Your task to perform on an android device: add a label to a message in the gmail app Image 0: 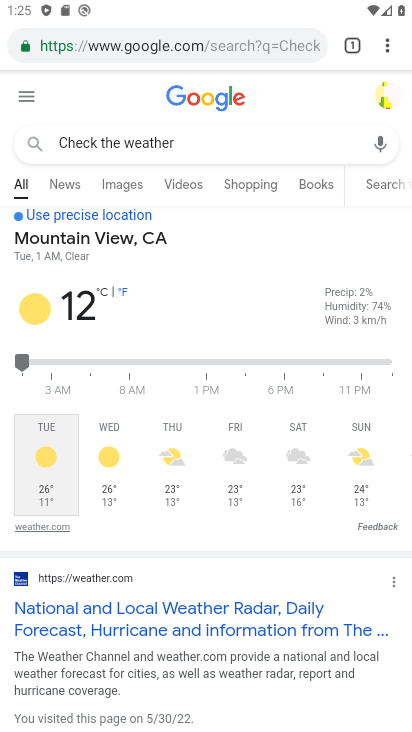
Step 0: press back button
Your task to perform on an android device: add a label to a message in the gmail app Image 1: 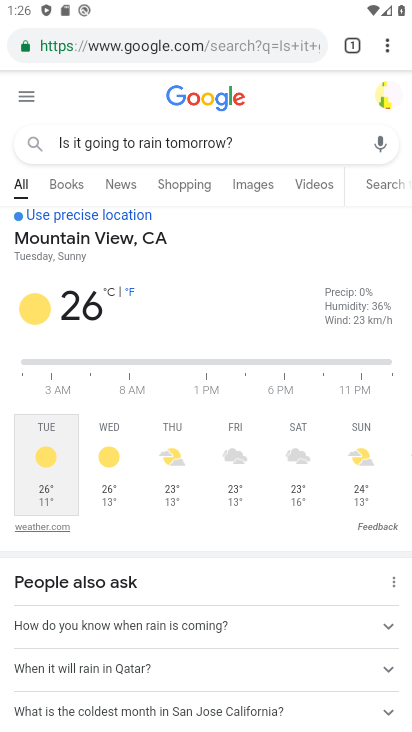
Step 1: press home button
Your task to perform on an android device: add a label to a message in the gmail app Image 2: 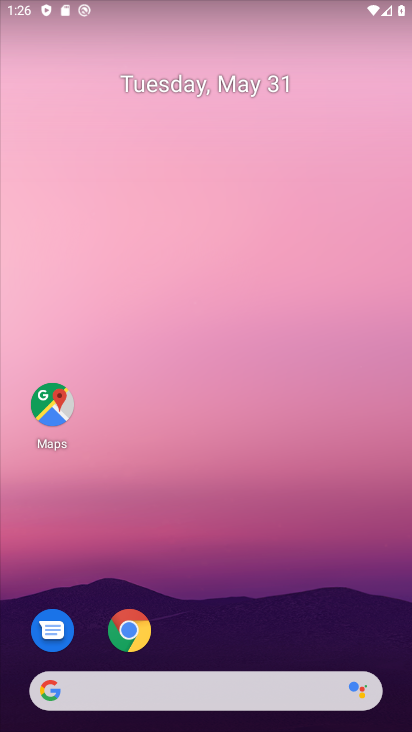
Step 2: drag from (287, 595) to (233, 41)
Your task to perform on an android device: add a label to a message in the gmail app Image 3: 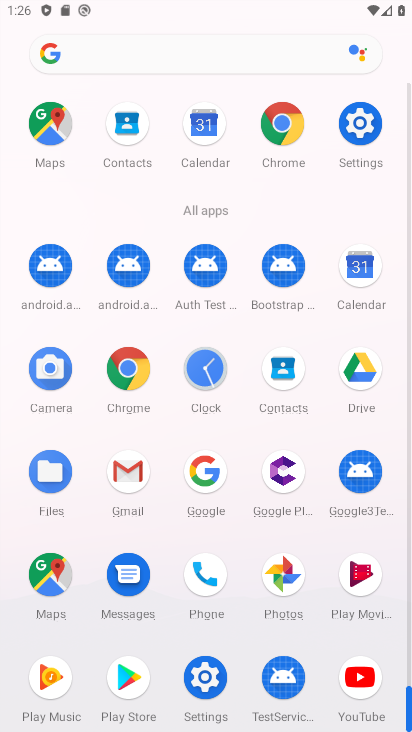
Step 3: click (125, 466)
Your task to perform on an android device: add a label to a message in the gmail app Image 4: 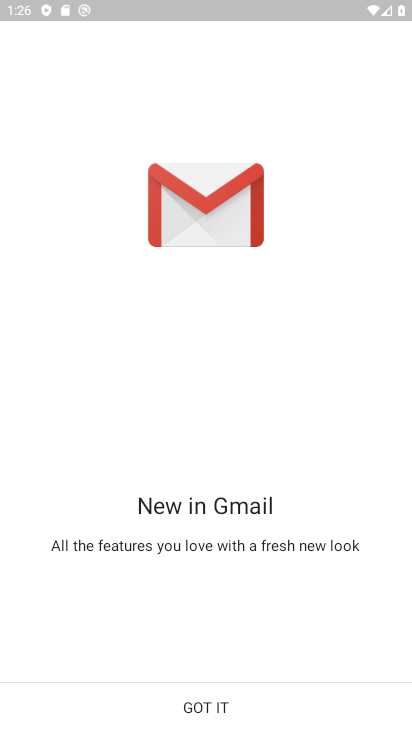
Step 4: click (177, 714)
Your task to perform on an android device: add a label to a message in the gmail app Image 5: 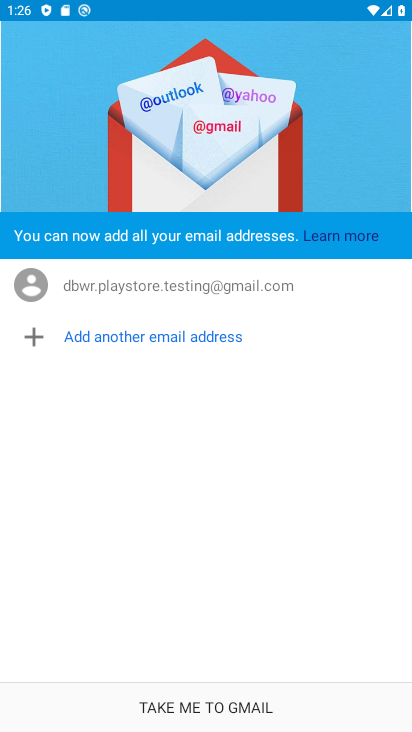
Step 5: click (205, 695)
Your task to perform on an android device: add a label to a message in the gmail app Image 6: 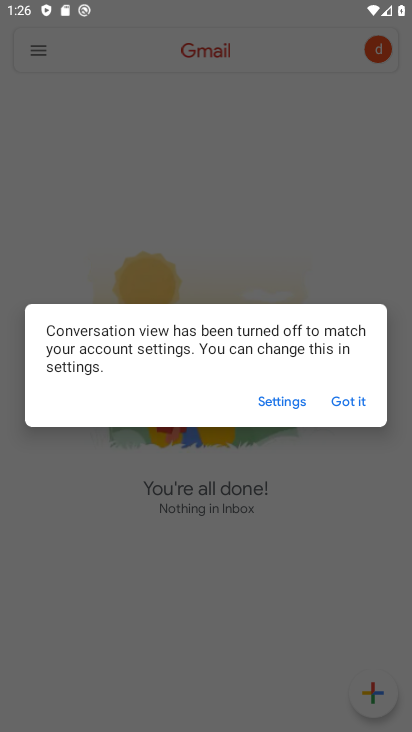
Step 6: click (349, 400)
Your task to perform on an android device: add a label to a message in the gmail app Image 7: 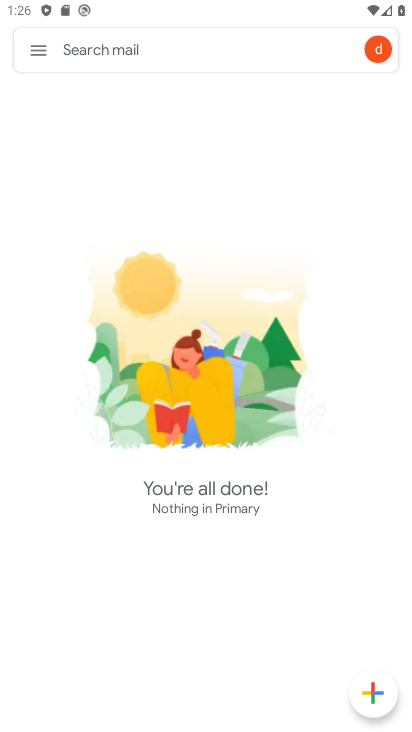
Step 7: click (44, 49)
Your task to perform on an android device: add a label to a message in the gmail app Image 8: 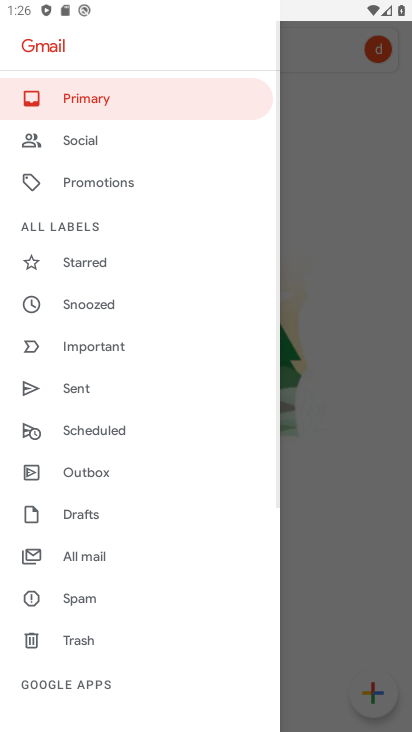
Step 8: drag from (148, 627) to (152, 137)
Your task to perform on an android device: add a label to a message in the gmail app Image 9: 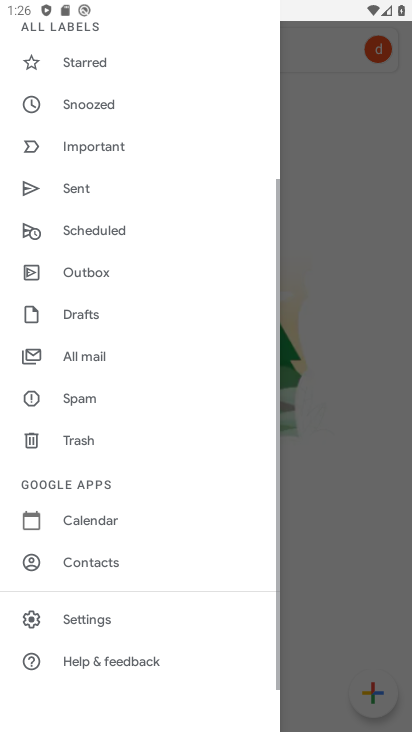
Step 9: click (105, 623)
Your task to perform on an android device: add a label to a message in the gmail app Image 10: 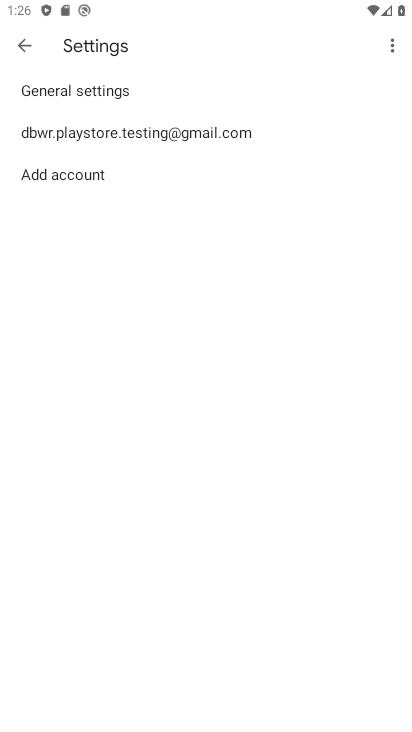
Step 10: click (191, 133)
Your task to perform on an android device: add a label to a message in the gmail app Image 11: 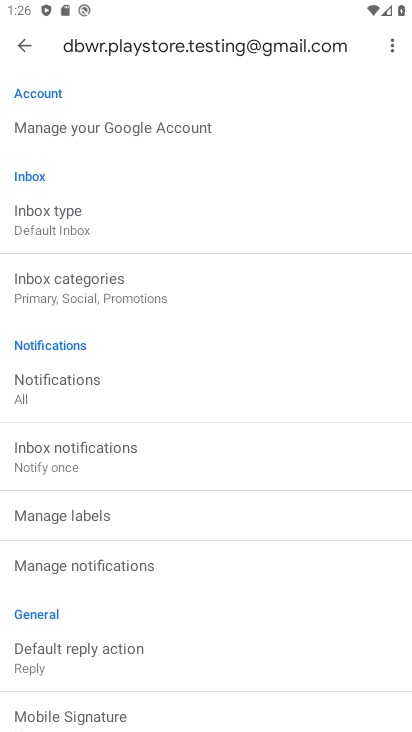
Step 11: click (8, 32)
Your task to perform on an android device: add a label to a message in the gmail app Image 12: 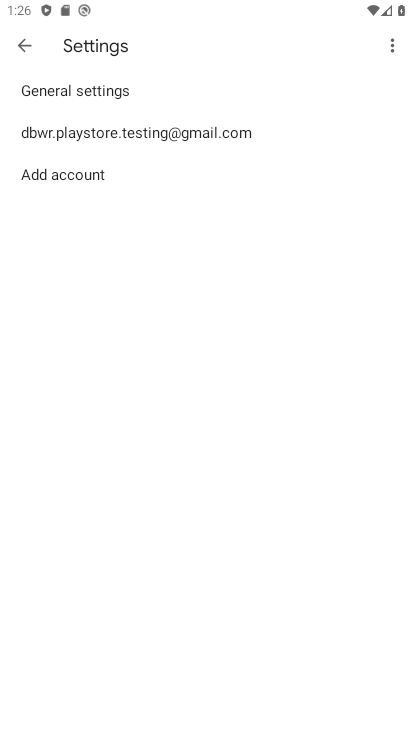
Step 12: click (17, 40)
Your task to perform on an android device: add a label to a message in the gmail app Image 13: 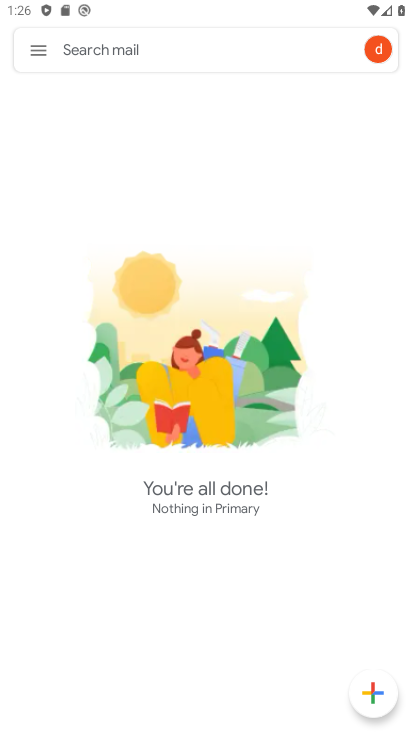
Step 13: click (41, 57)
Your task to perform on an android device: add a label to a message in the gmail app Image 14: 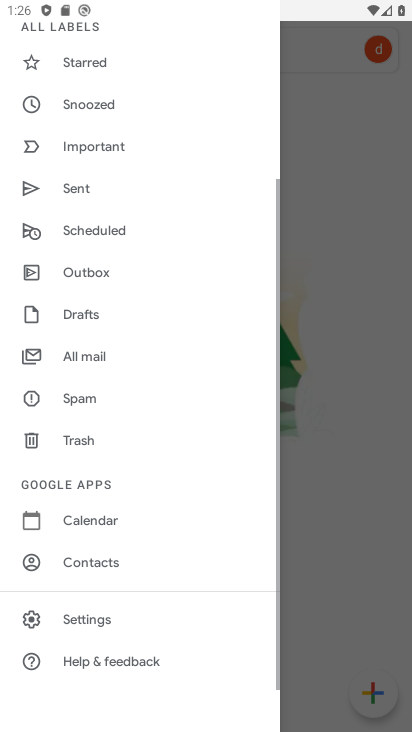
Step 14: drag from (177, 148) to (193, 614)
Your task to perform on an android device: add a label to a message in the gmail app Image 15: 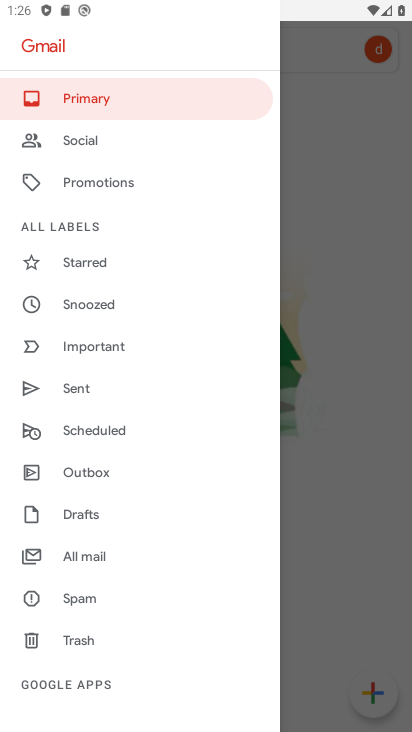
Step 15: click (90, 557)
Your task to perform on an android device: add a label to a message in the gmail app Image 16: 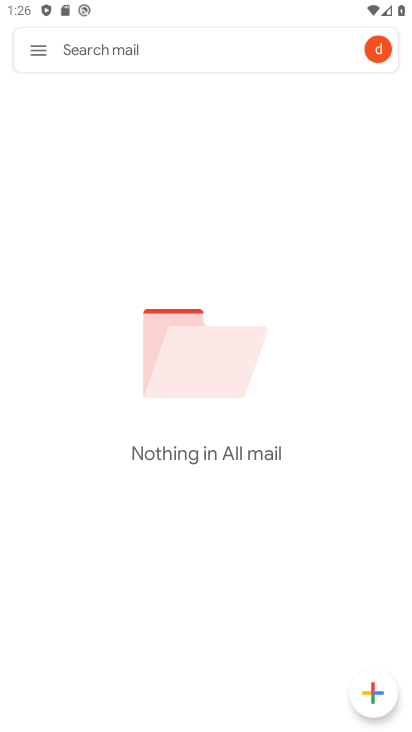
Step 16: click (44, 50)
Your task to perform on an android device: add a label to a message in the gmail app Image 17: 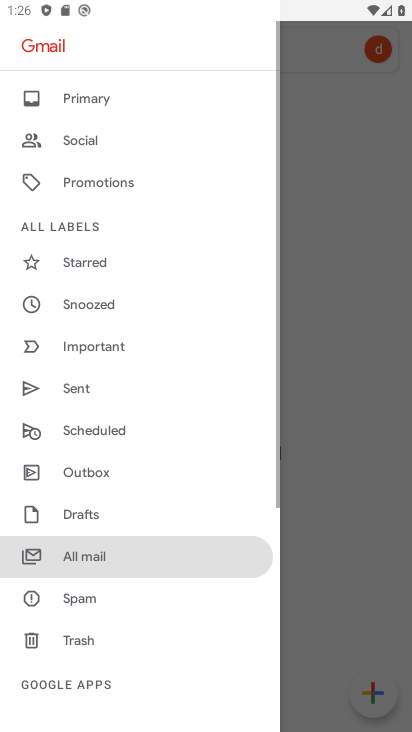
Step 17: click (81, 94)
Your task to perform on an android device: add a label to a message in the gmail app Image 18: 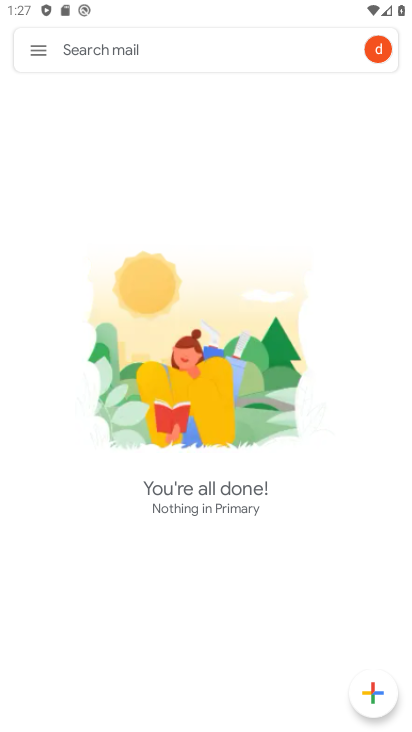
Step 18: task complete